Your task to perform on an android device: Clear all items from cart on amazon.com. Search for "logitech g903" on amazon.com, select the first entry, add it to the cart, then select checkout. Image 0: 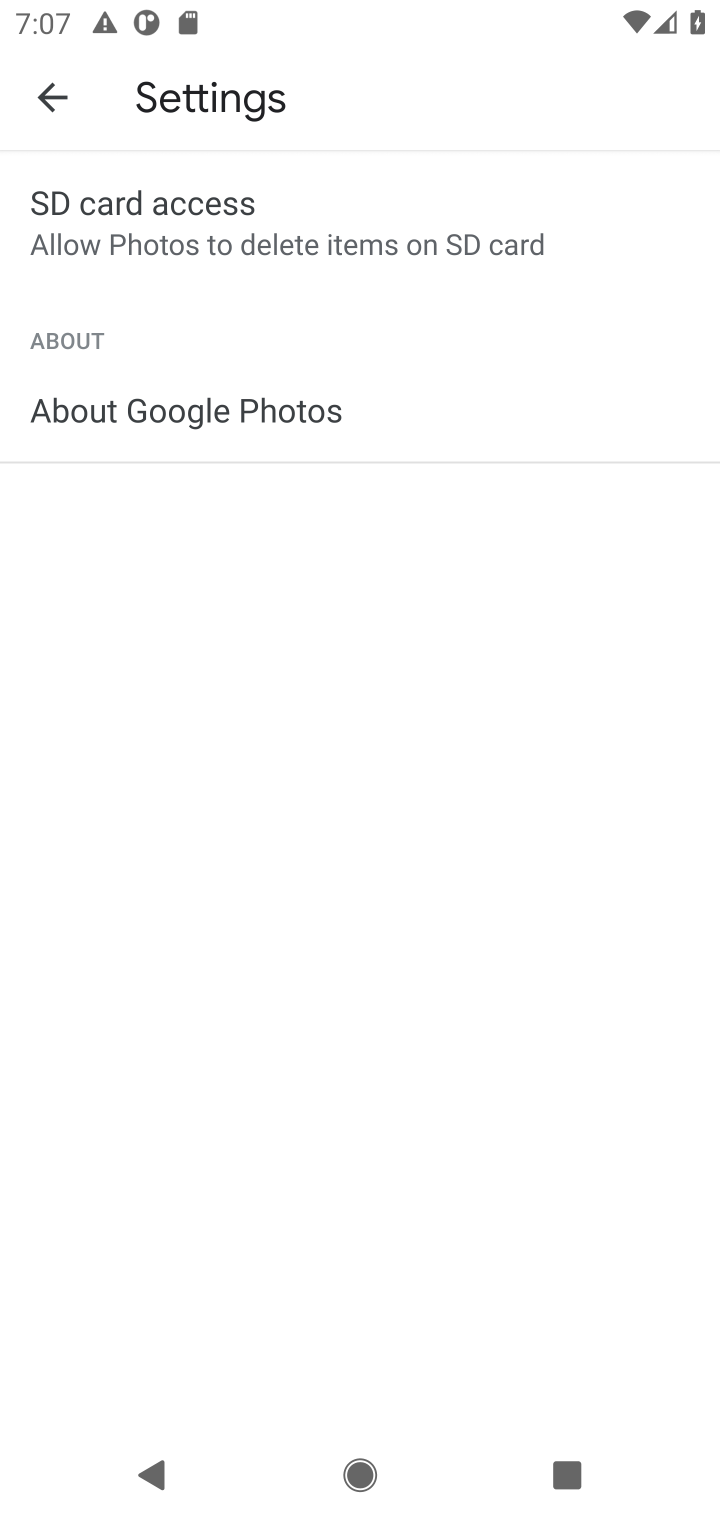
Step 0: press home button
Your task to perform on an android device: Clear all items from cart on amazon.com. Search for "logitech g903" on amazon.com, select the first entry, add it to the cart, then select checkout. Image 1: 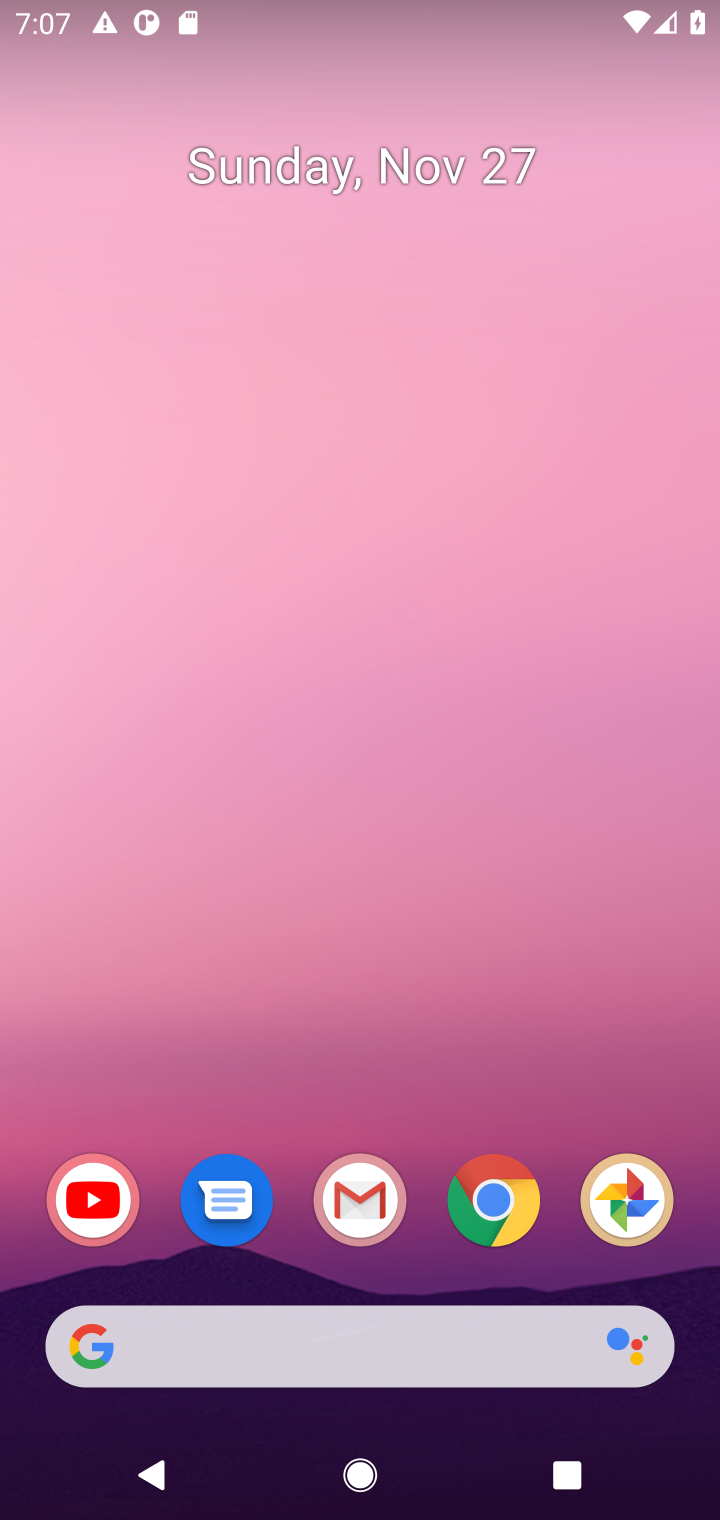
Step 1: click (498, 1212)
Your task to perform on an android device: Clear all items from cart on amazon.com. Search for "logitech g903" on amazon.com, select the first entry, add it to the cart, then select checkout. Image 2: 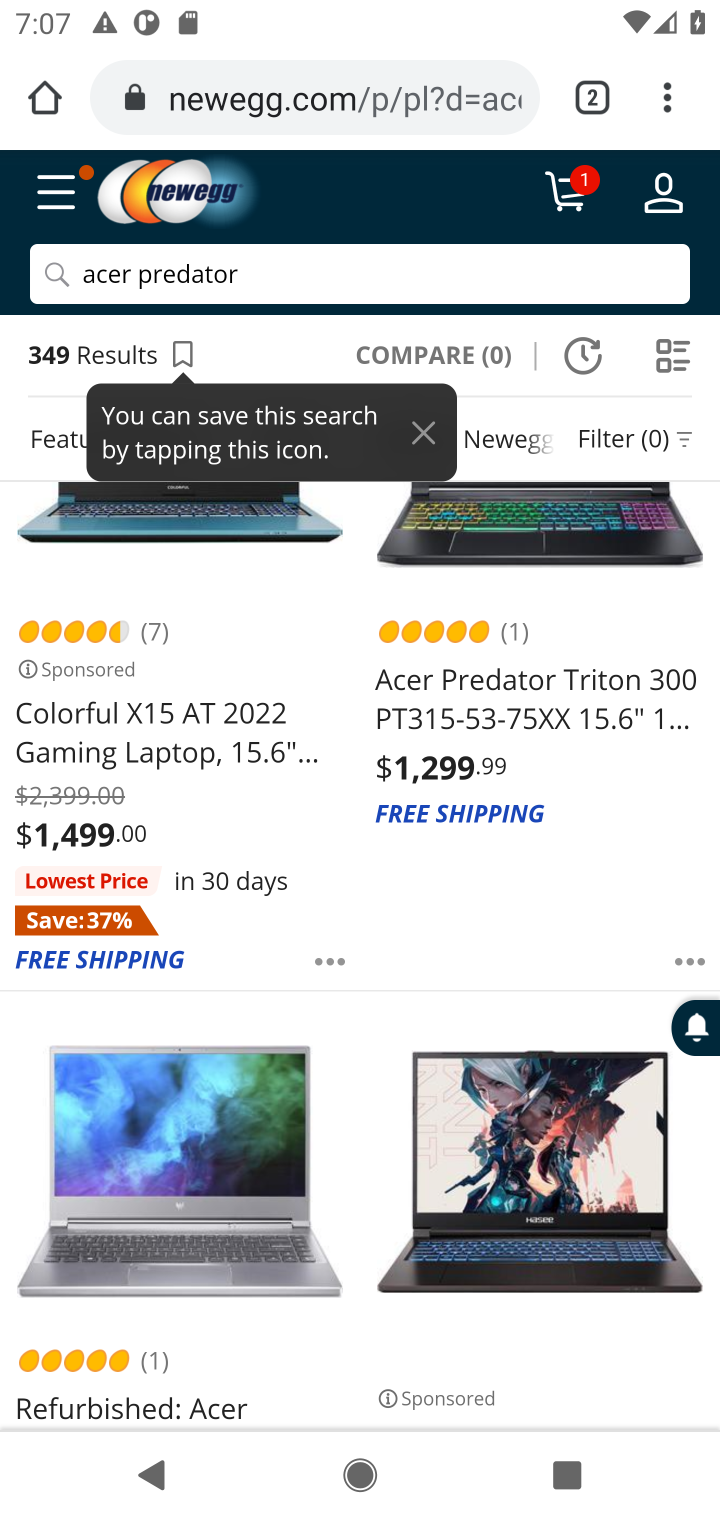
Step 2: click (348, 100)
Your task to perform on an android device: Clear all items from cart on amazon.com. Search for "logitech g903" on amazon.com, select the first entry, add it to the cart, then select checkout. Image 3: 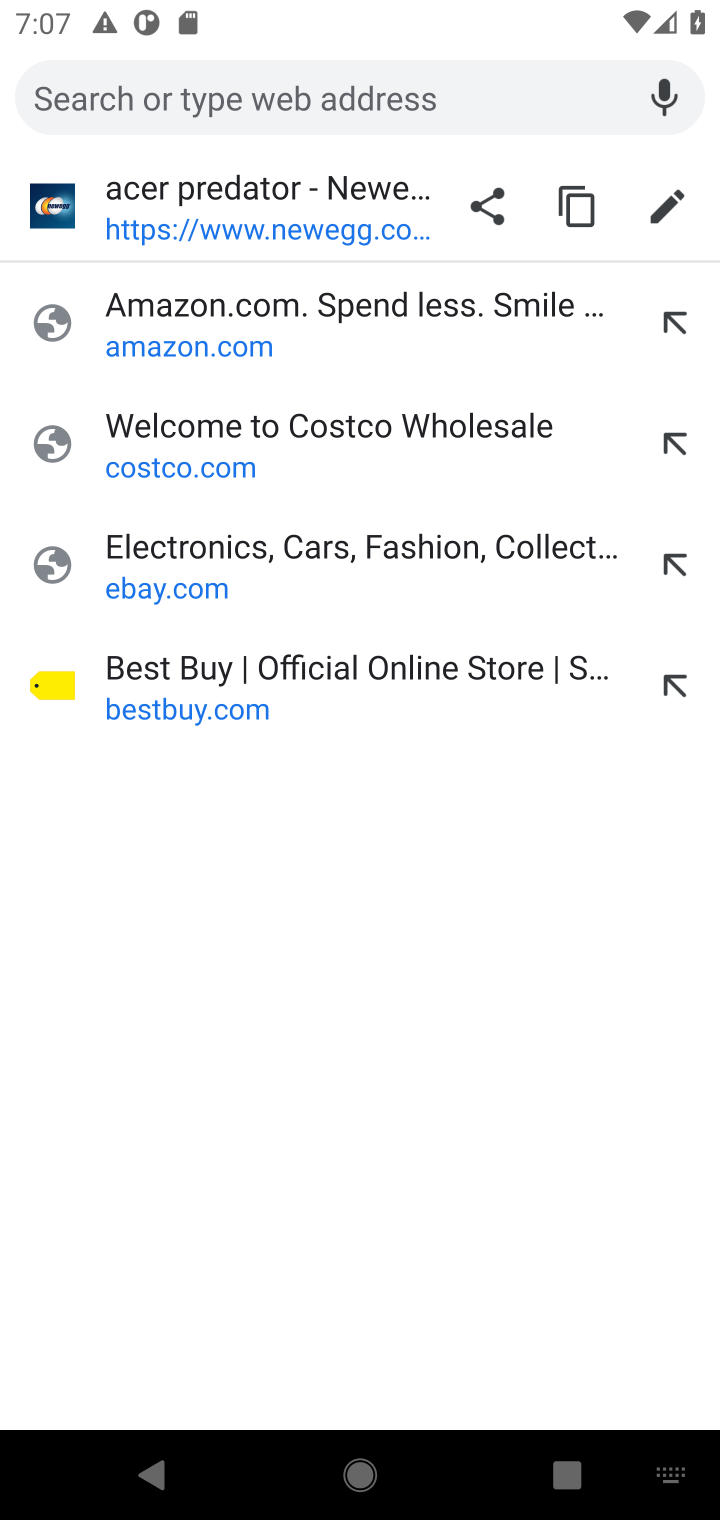
Step 3: click (206, 315)
Your task to perform on an android device: Clear all items from cart on amazon.com. Search for "logitech g903" on amazon.com, select the first entry, add it to the cart, then select checkout. Image 4: 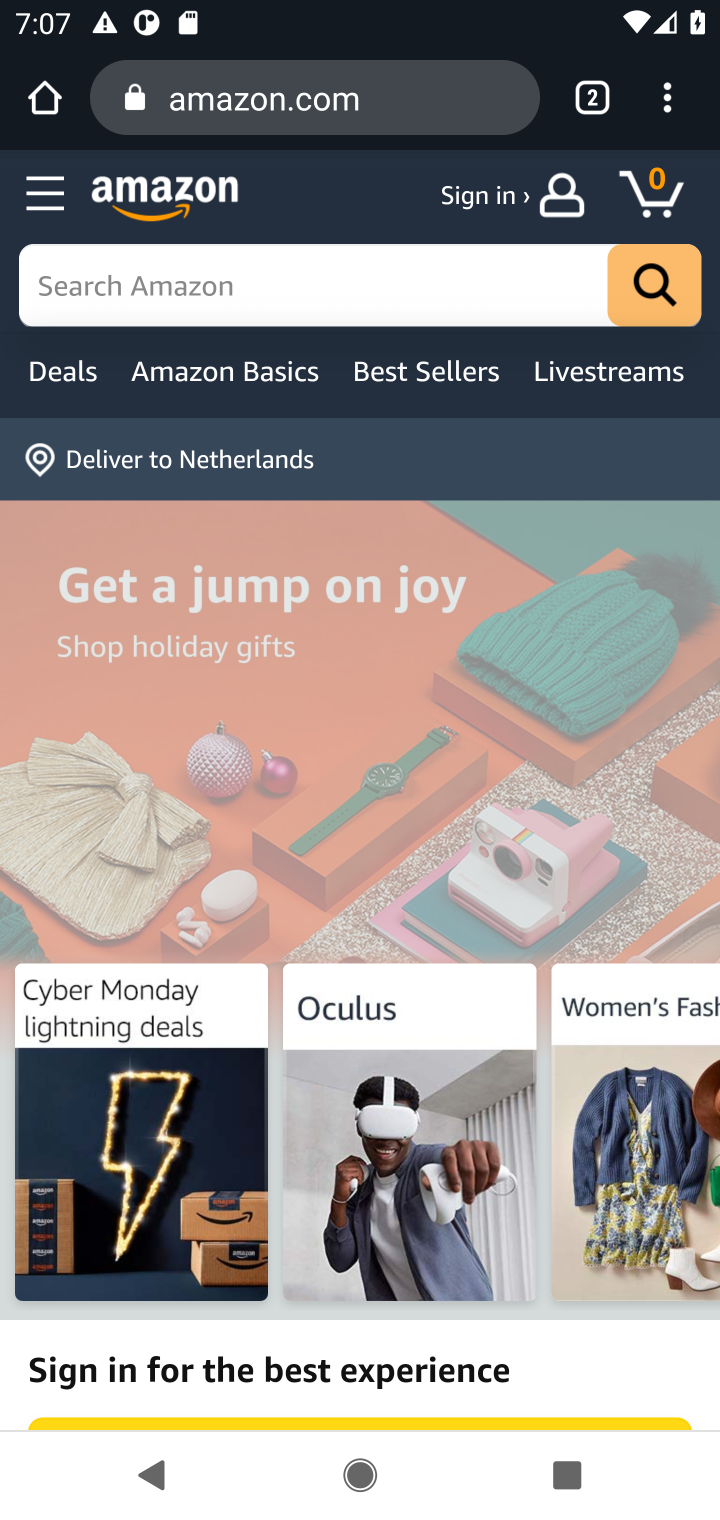
Step 4: click (647, 206)
Your task to perform on an android device: Clear all items from cart on amazon.com. Search for "logitech g903" on amazon.com, select the first entry, add it to the cart, then select checkout. Image 5: 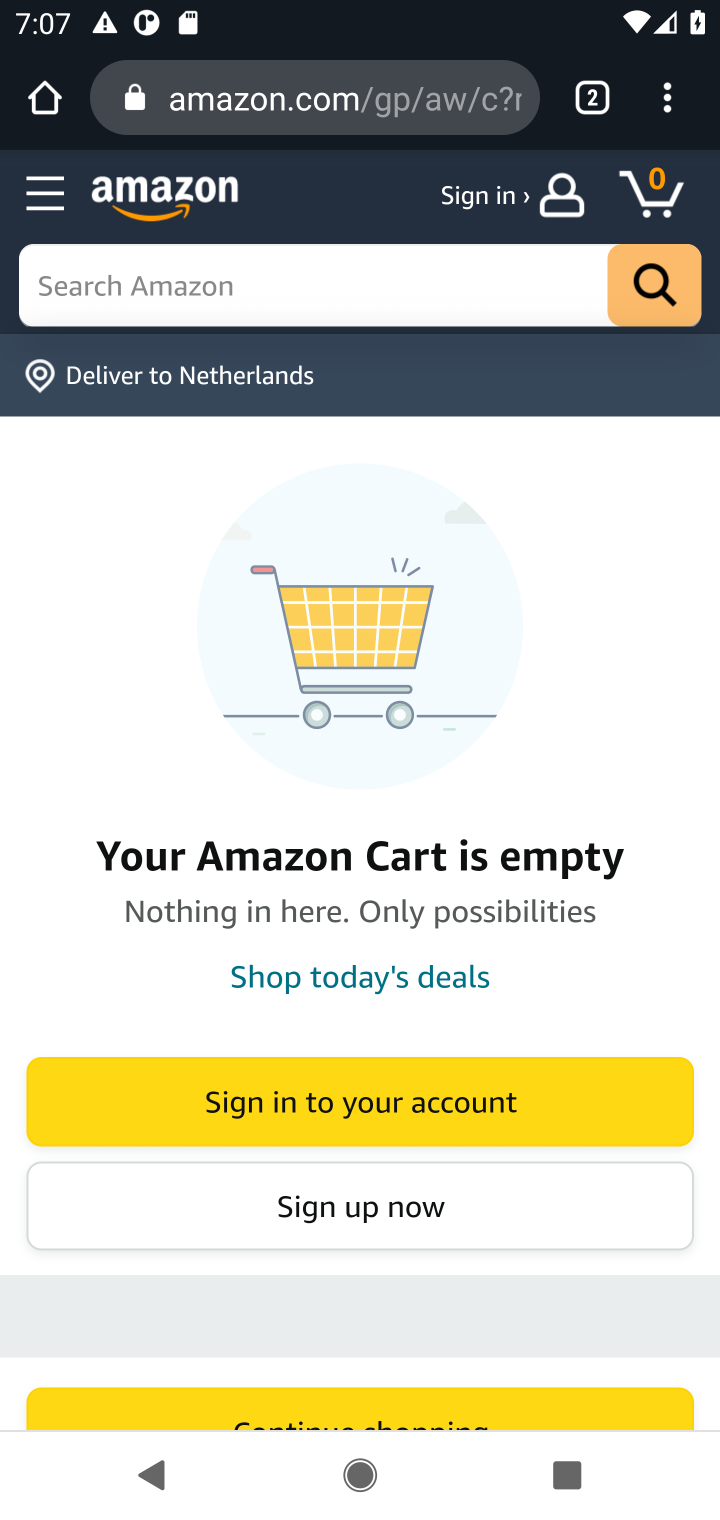
Step 5: click (190, 281)
Your task to perform on an android device: Clear all items from cart on amazon.com. Search for "logitech g903" on amazon.com, select the first entry, add it to the cart, then select checkout. Image 6: 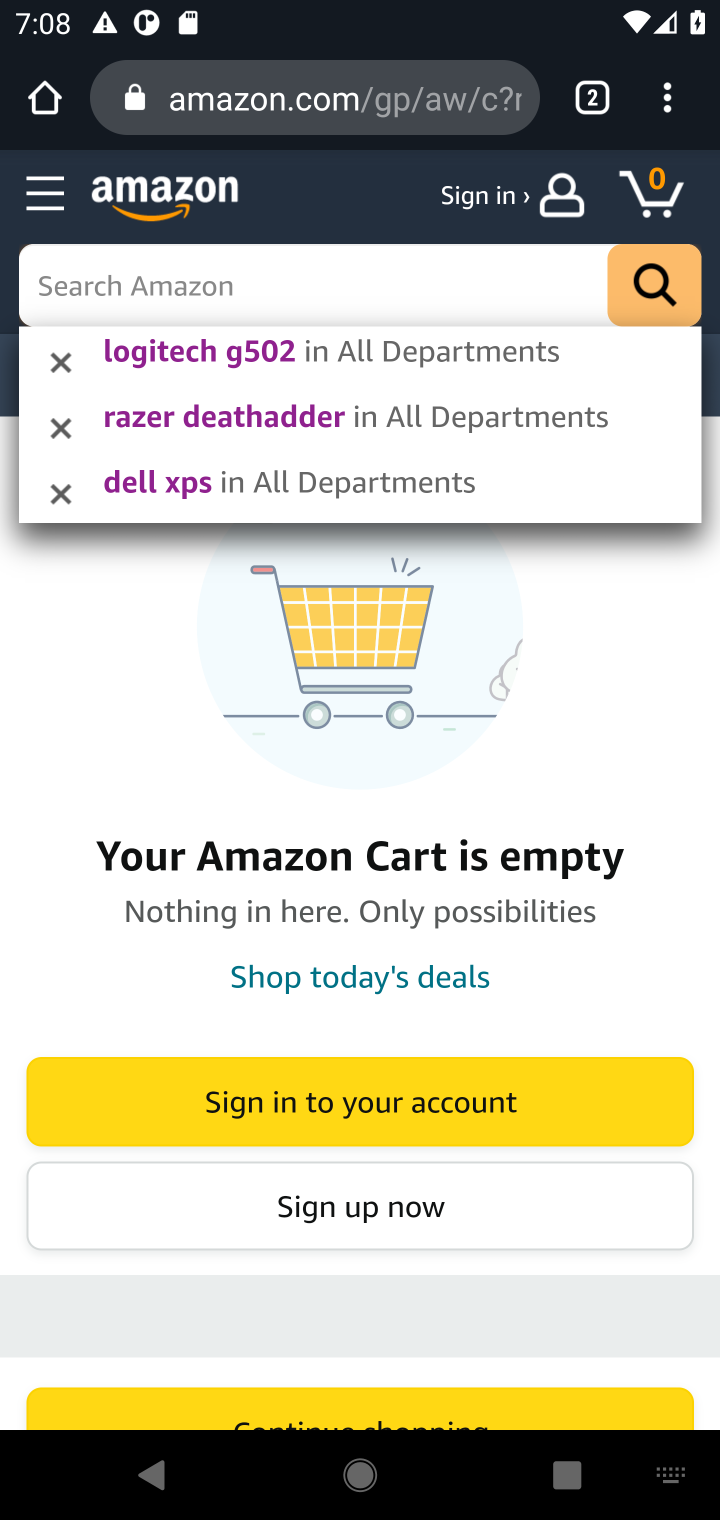
Step 6: type "logitech g903"
Your task to perform on an android device: Clear all items from cart on amazon.com. Search for "logitech g903" on amazon.com, select the first entry, add it to the cart, then select checkout. Image 7: 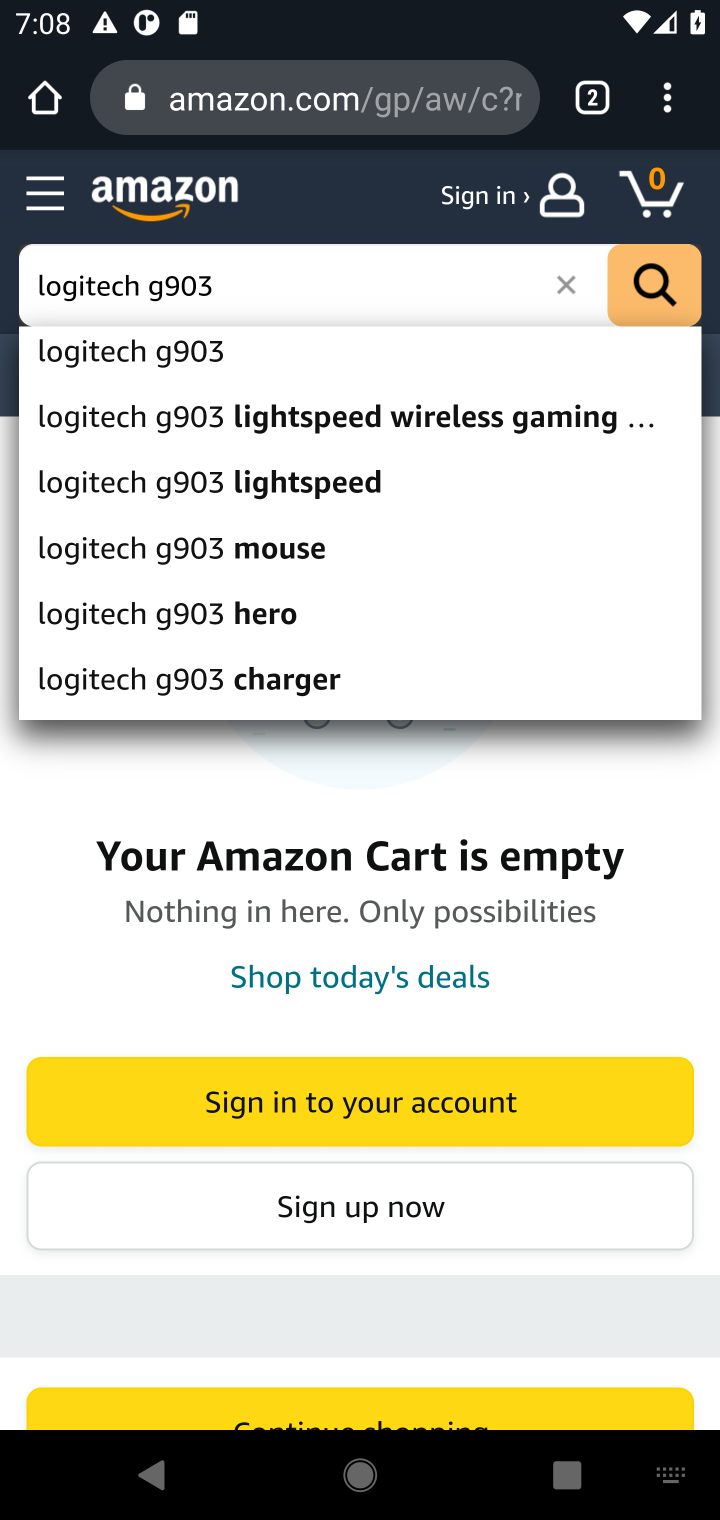
Step 7: click (137, 374)
Your task to perform on an android device: Clear all items from cart on amazon.com. Search for "logitech g903" on amazon.com, select the first entry, add it to the cart, then select checkout. Image 8: 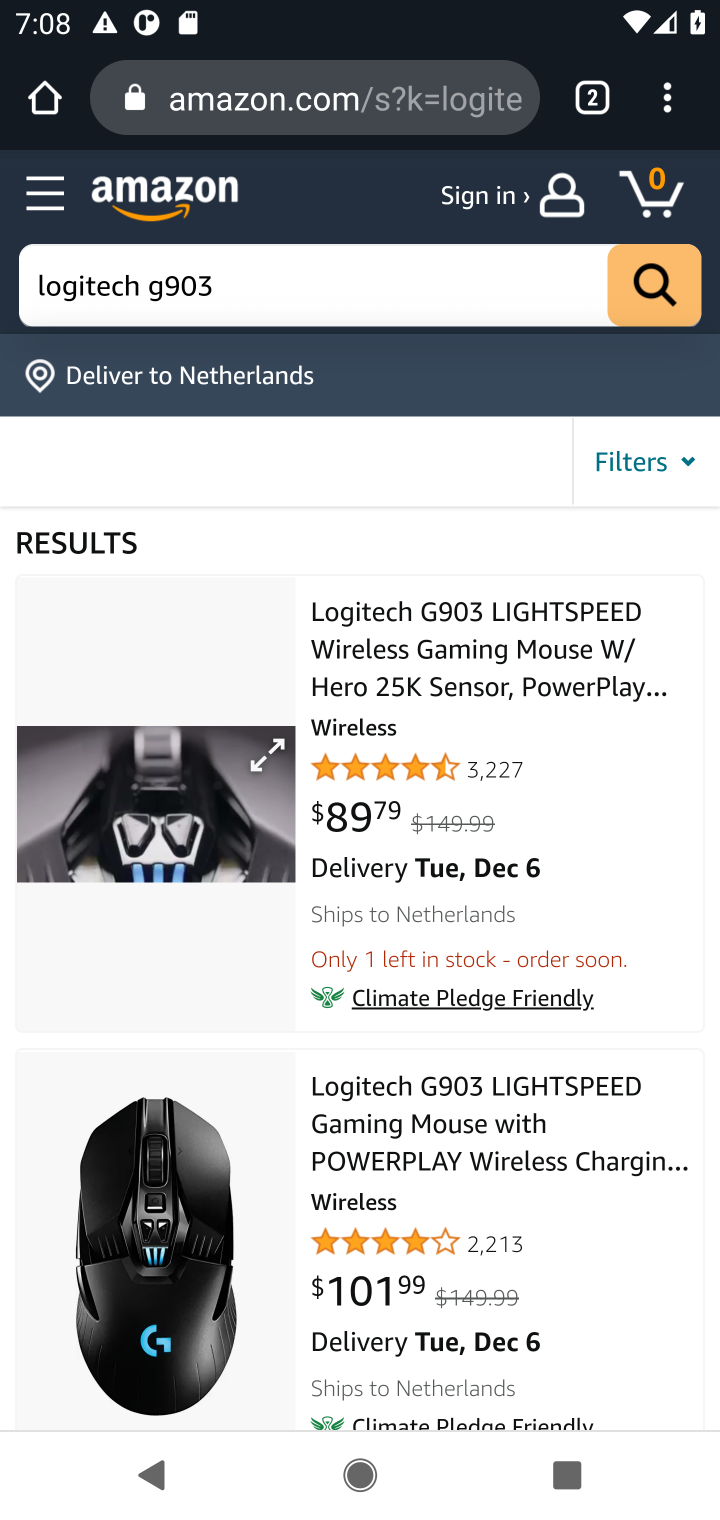
Step 8: click (380, 681)
Your task to perform on an android device: Clear all items from cart on amazon.com. Search for "logitech g903" on amazon.com, select the first entry, add it to the cart, then select checkout. Image 9: 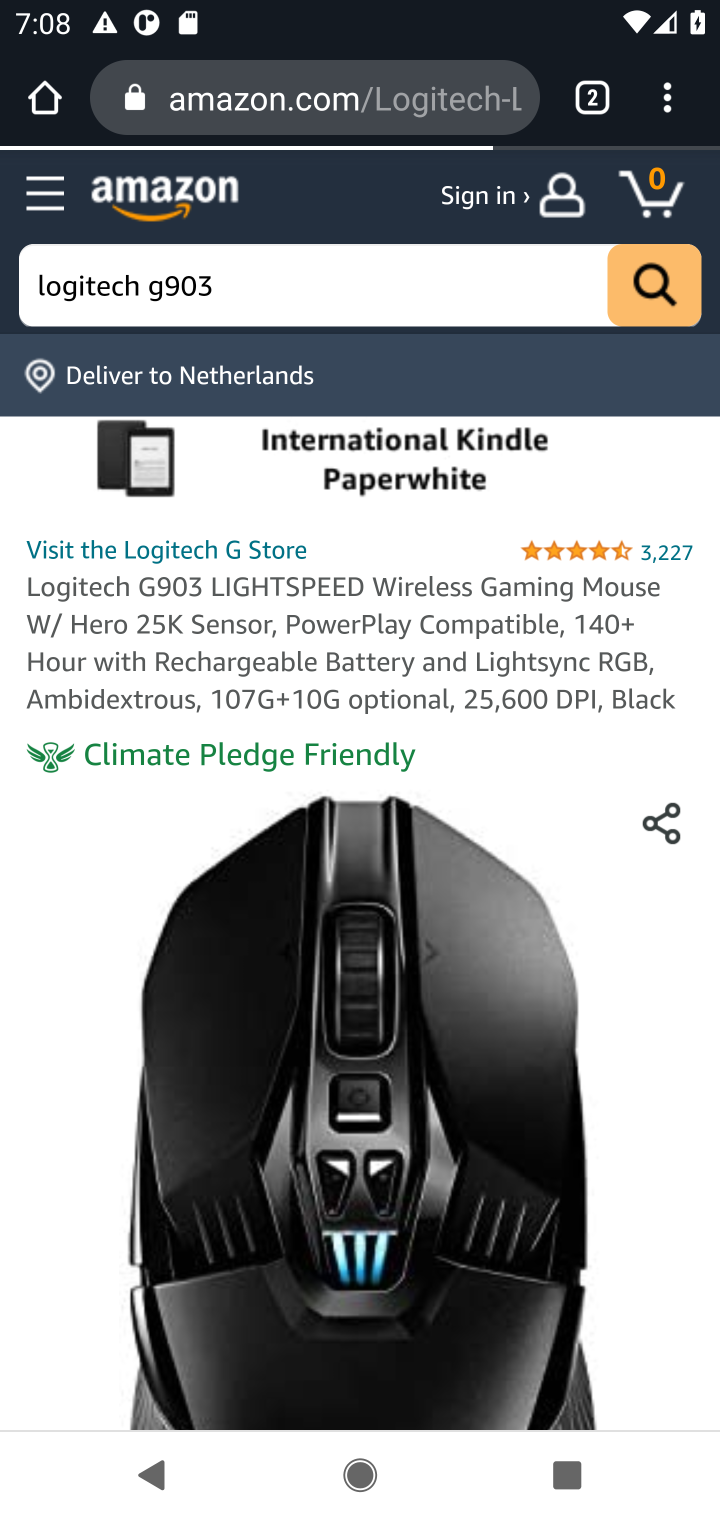
Step 9: drag from (248, 1211) to (279, 488)
Your task to perform on an android device: Clear all items from cart on amazon.com. Search for "logitech g903" on amazon.com, select the first entry, add it to the cart, then select checkout. Image 10: 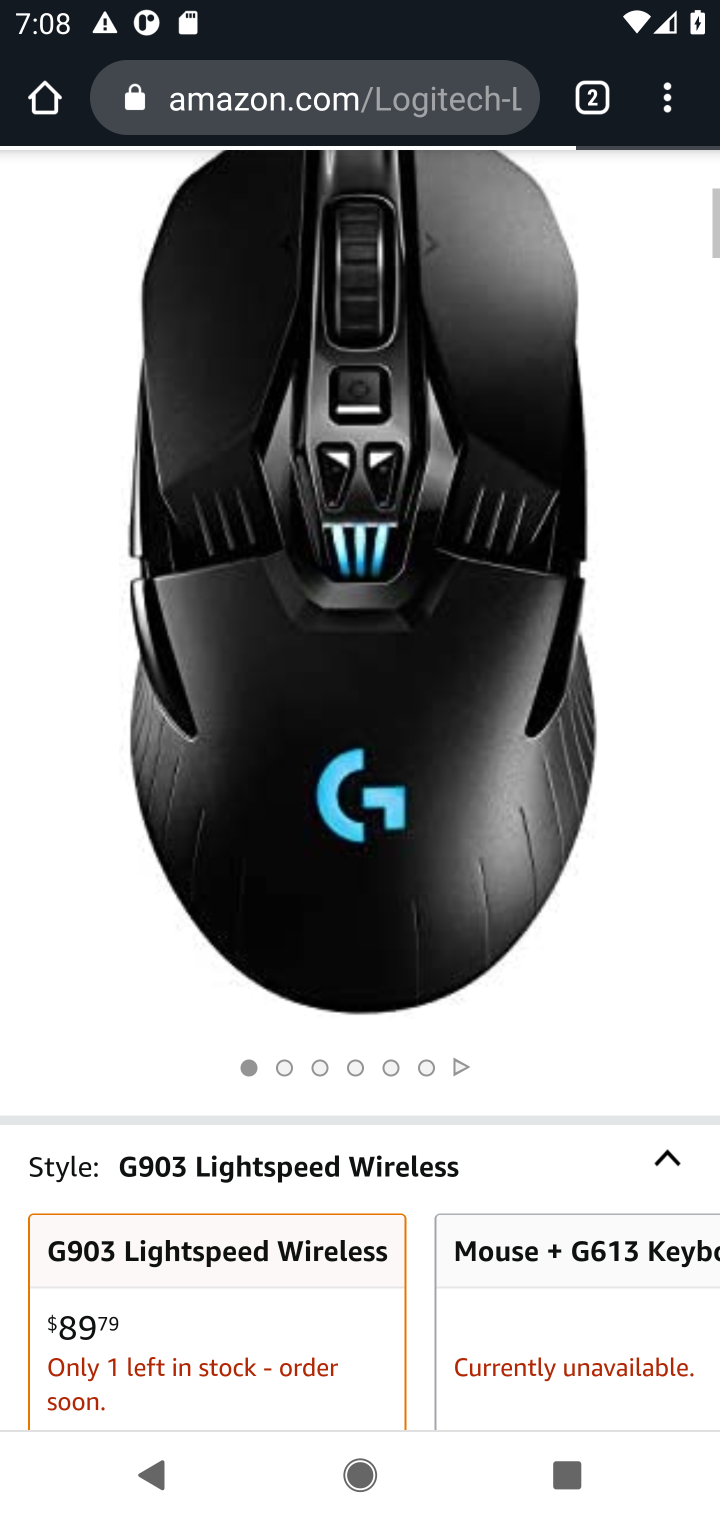
Step 10: drag from (307, 1054) to (314, 444)
Your task to perform on an android device: Clear all items from cart on amazon.com. Search for "logitech g903" on amazon.com, select the first entry, add it to the cart, then select checkout. Image 11: 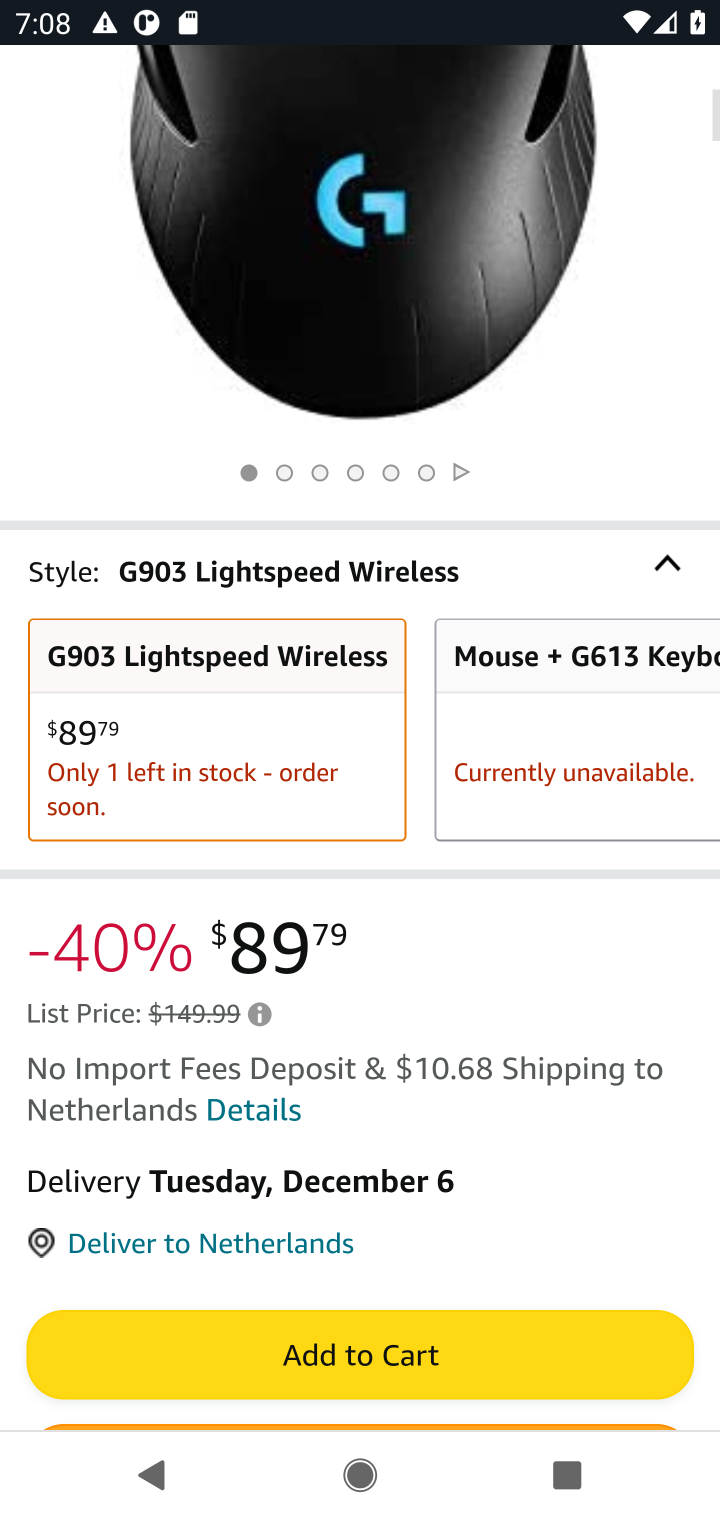
Step 11: drag from (294, 1132) to (314, 605)
Your task to perform on an android device: Clear all items from cart on amazon.com. Search for "logitech g903" on amazon.com, select the first entry, add it to the cart, then select checkout. Image 12: 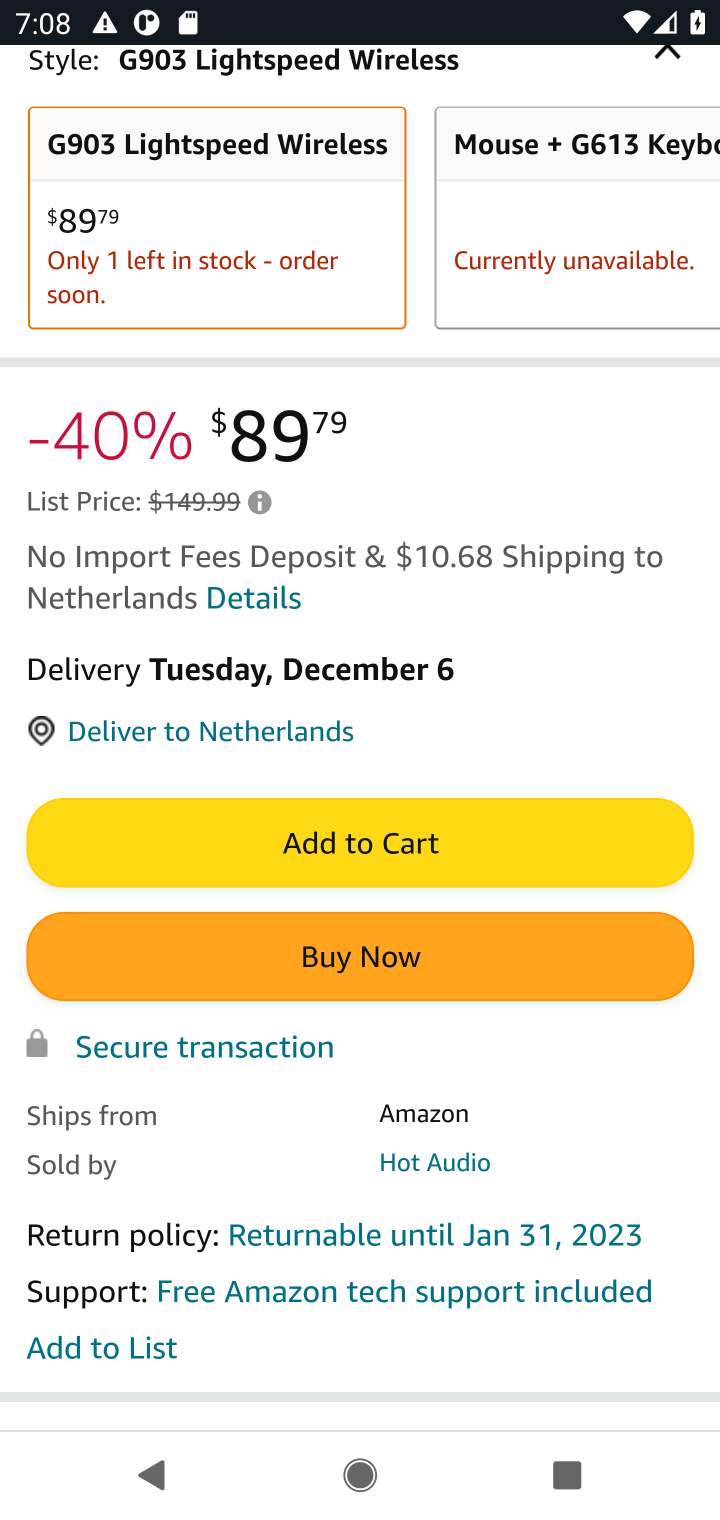
Step 12: click (299, 836)
Your task to perform on an android device: Clear all items from cart on amazon.com. Search for "logitech g903" on amazon.com, select the first entry, add it to the cart, then select checkout. Image 13: 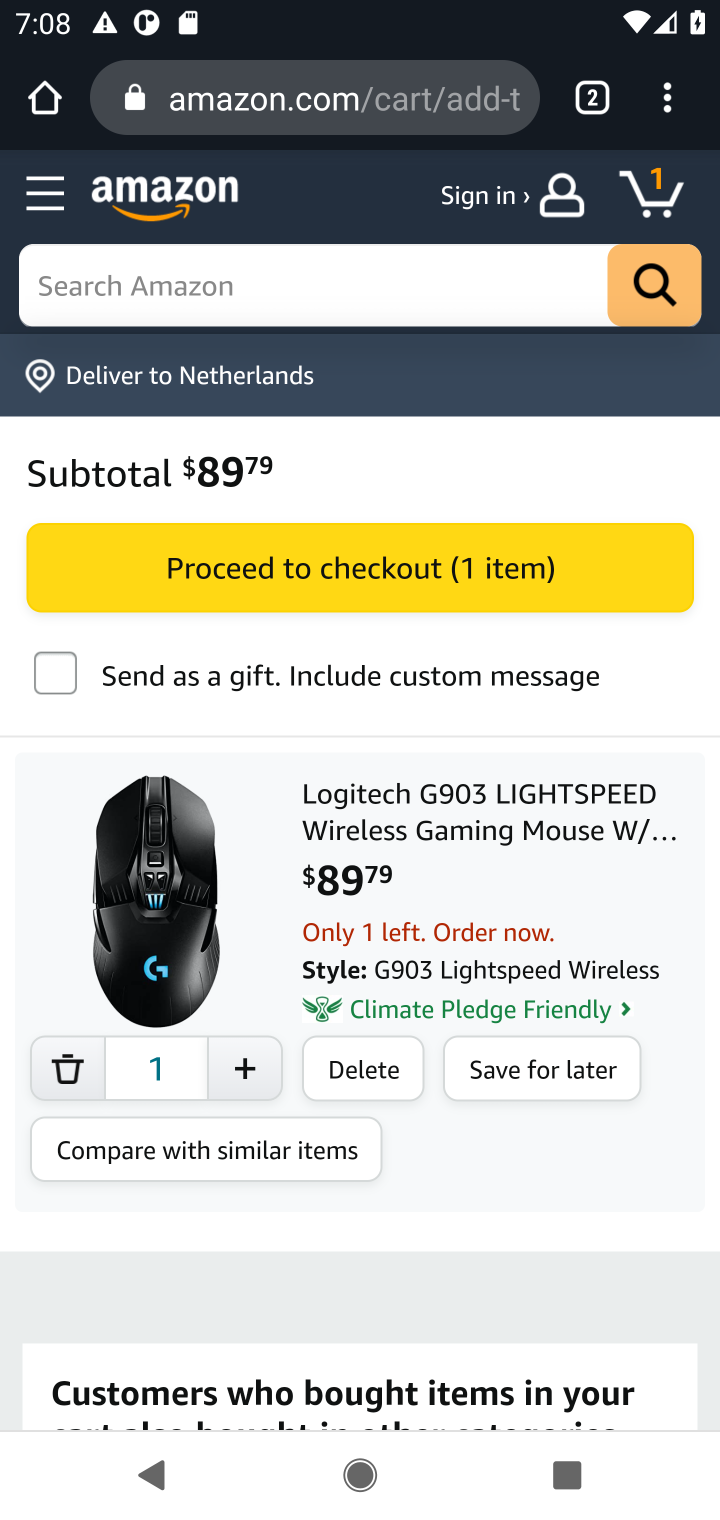
Step 13: click (315, 572)
Your task to perform on an android device: Clear all items from cart on amazon.com. Search for "logitech g903" on amazon.com, select the first entry, add it to the cart, then select checkout. Image 14: 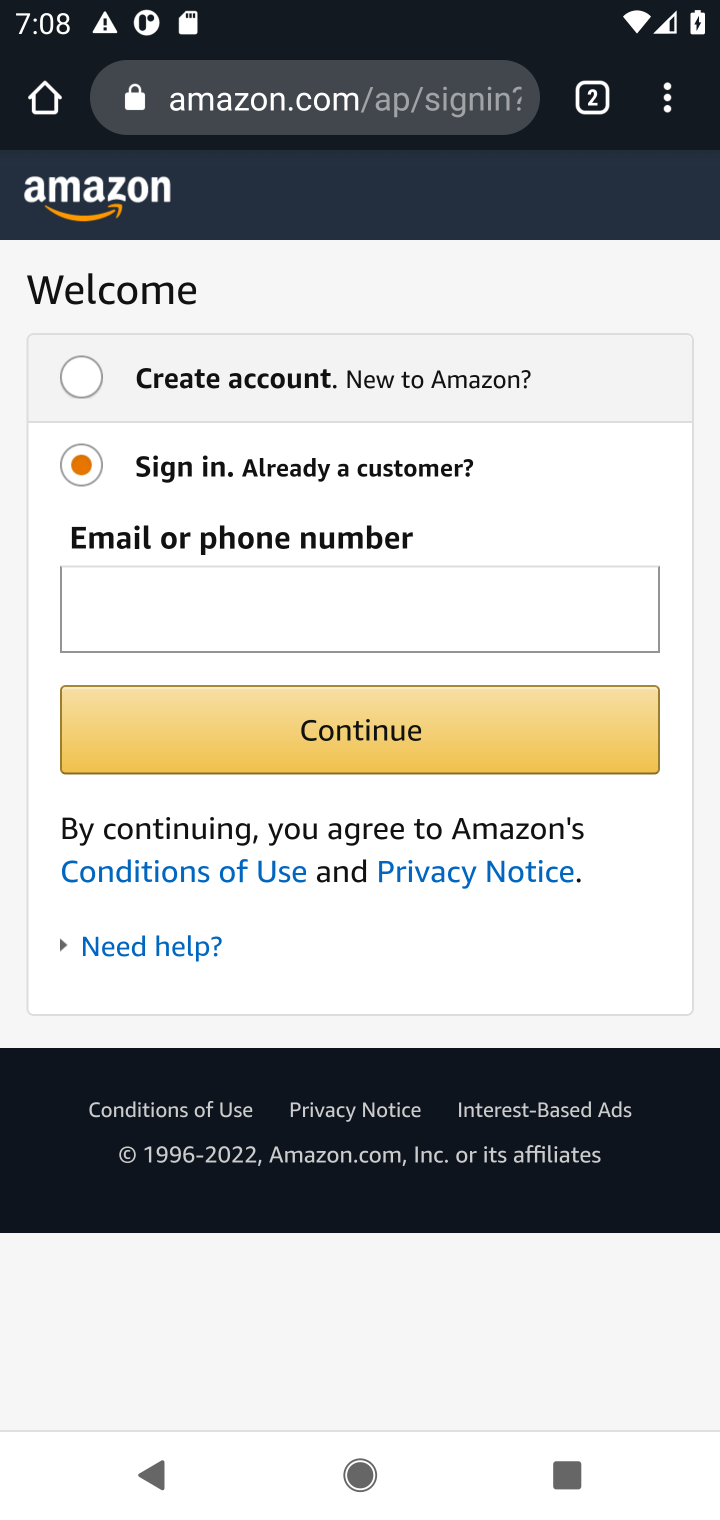
Step 14: task complete